Your task to perform on an android device: Is it going to rain tomorrow? Image 0: 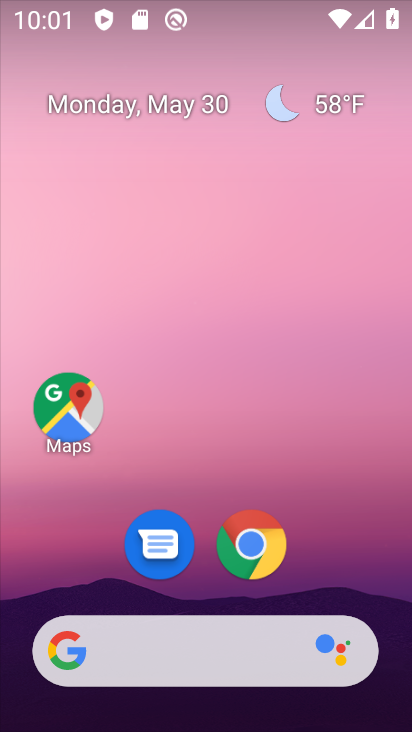
Step 0: drag from (352, 568) to (340, 16)
Your task to perform on an android device: Is it going to rain tomorrow? Image 1: 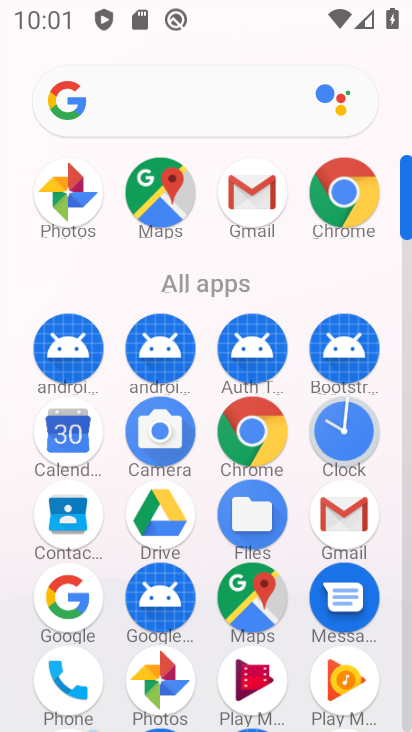
Step 1: click (204, 113)
Your task to perform on an android device: Is it going to rain tomorrow? Image 2: 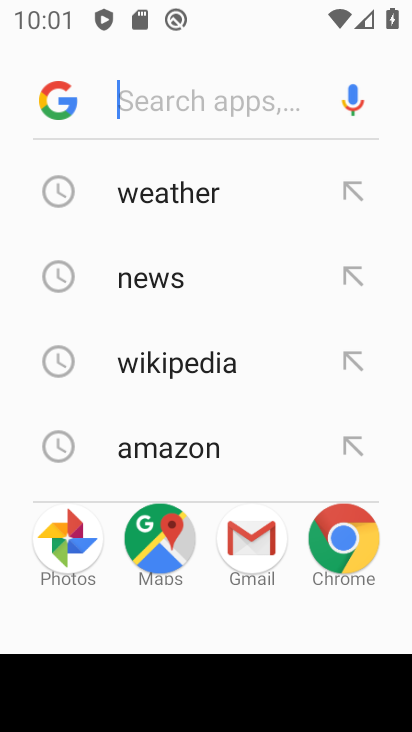
Step 2: click (213, 175)
Your task to perform on an android device: Is it going to rain tomorrow? Image 3: 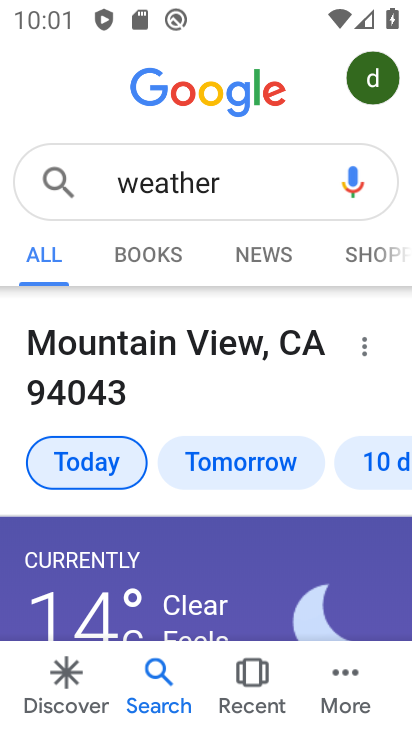
Step 3: click (241, 458)
Your task to perform on an android device: Is it going to rain tomorrow? Image 4: 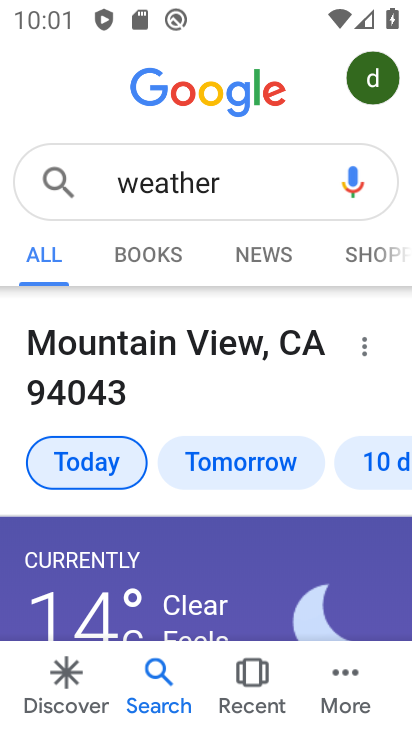
Step 4: click (261, 470)
Your task to perform on an android device: Is it going to rain tomorrow? Image 5: 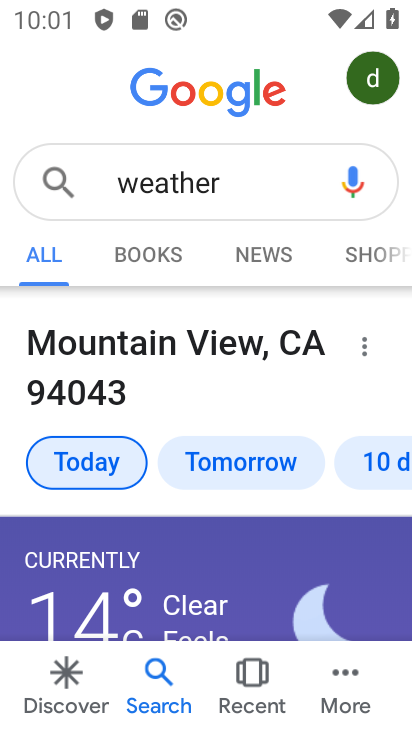
Step 5: task complete